Your task to perform on an android device: Find coffee shops on Maps Image 0: 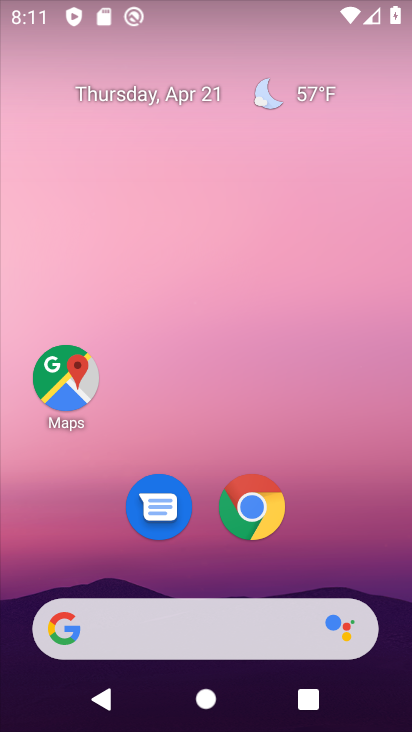
Step 0: click (84, 382)
Your task to perform on an android device: Find coffee shops on Maps Image 1: 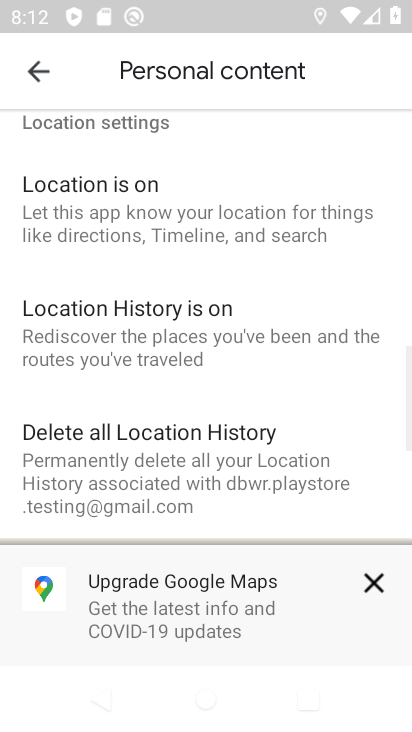
Step 1: click (34, 72)
Your task to perform on an android device: Find coffee shops on Maps Image 2: 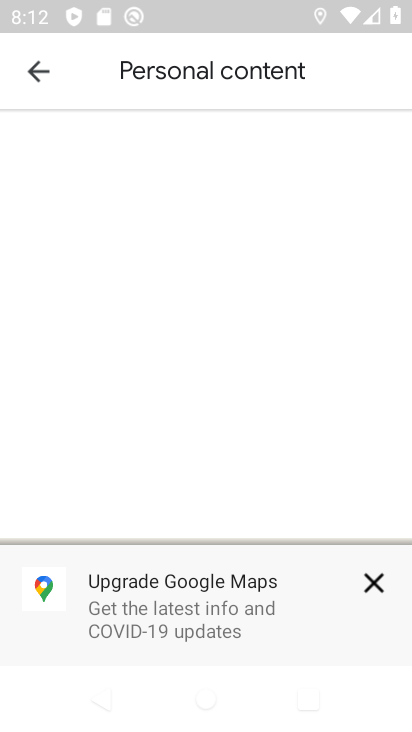
Step 2: click (34, 72)
Your task to perform on an android device: Find coffee shops on Maps Image 3: 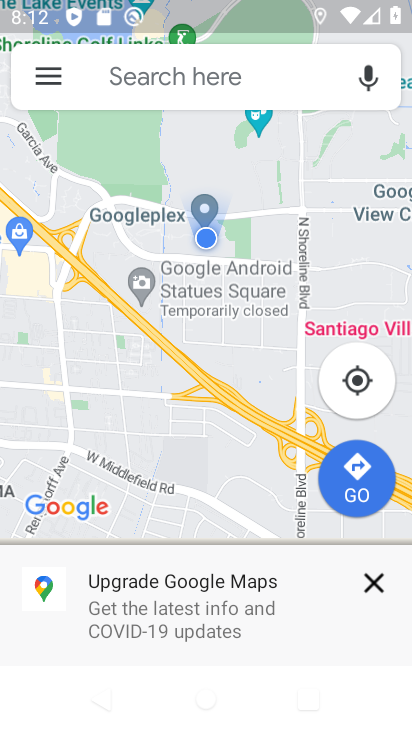
Step 3: click (111, 69)
Your task to perform on an android device: Find coffee shops on Maps Image 4: 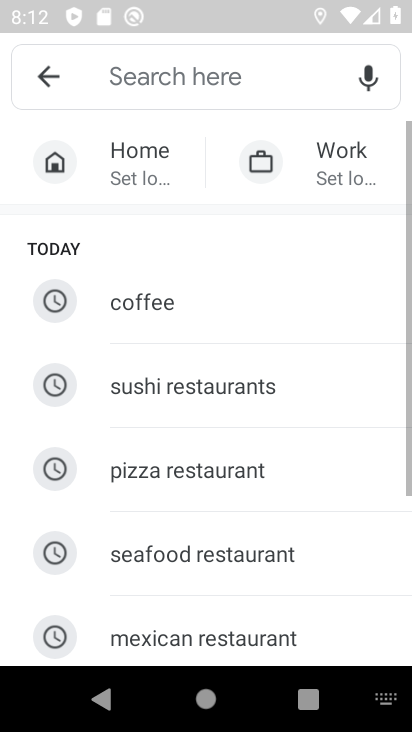
Step 4: click (115, 55)
Your task to perform on an android device: Find coffee shops on Maps Image 5: 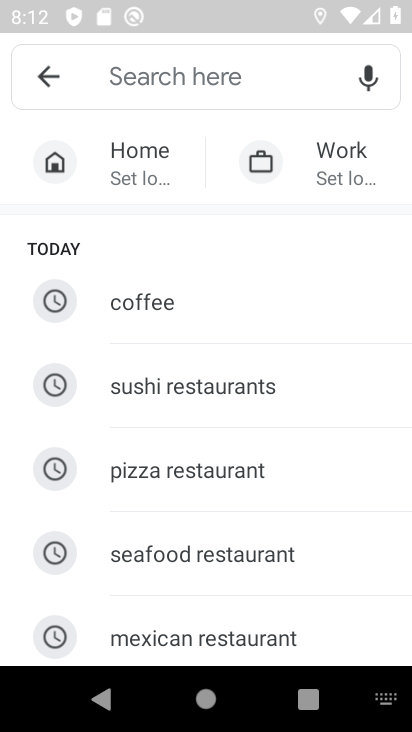
Step 5: type "coffee shops "
Your task to perform on an android device: Find coffee shops on Maps Image 6: 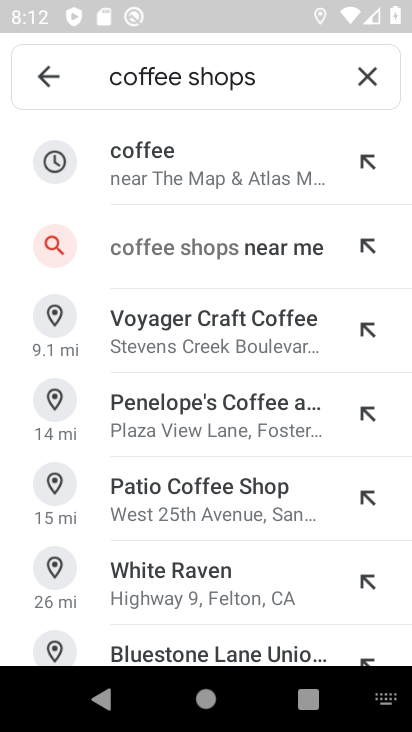
Step 6: click (193, 248)
Your task to perform on an android device: Find coffee shops on Maps Image 7: 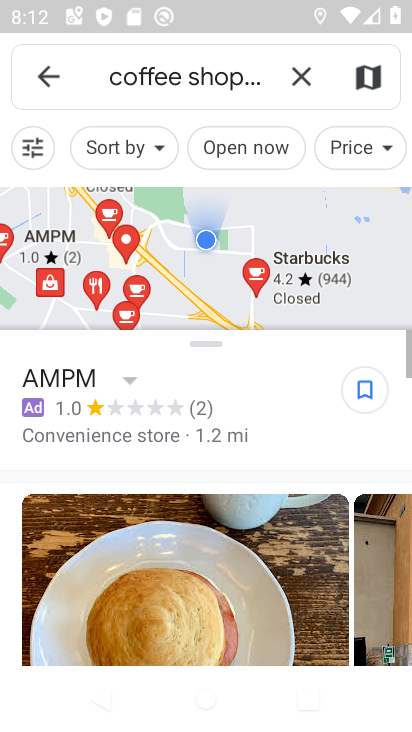
Step 7: task complete